Your task to perform on an android device: Open wifi settings Image 0: 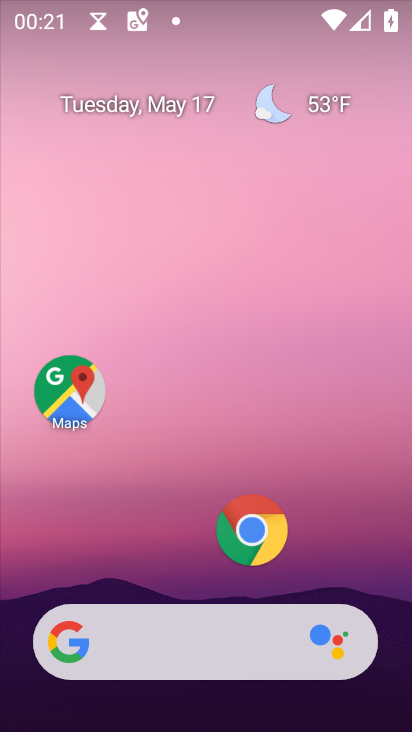
Step 0: drag from (187, 486) to (211, 94)
Your task to perform on an android device: Open wifi settings Image 1: 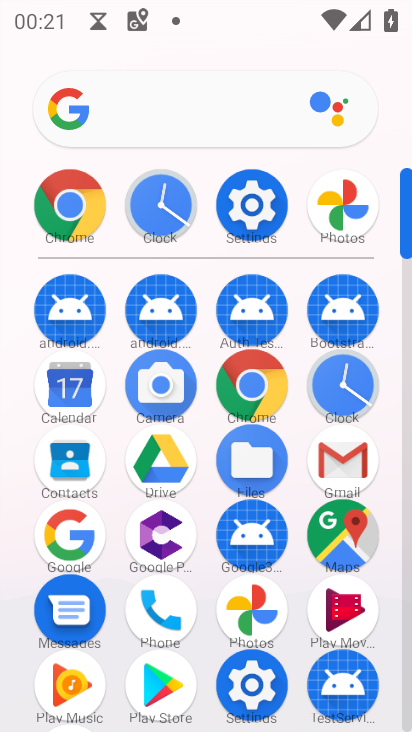
Step 1: click (246, 193)
Your task to perform on an android device: Open wifi settings Image 2: 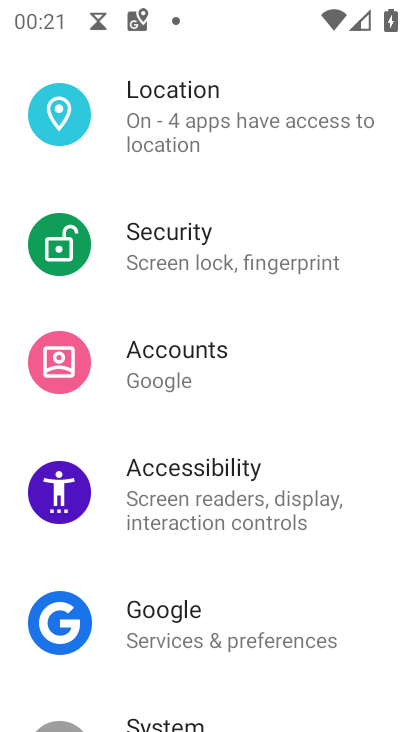
Step 2: drag from (297, 172) to (290, 518)
Your task to perform on an android device: Open wifi settings Image 3: 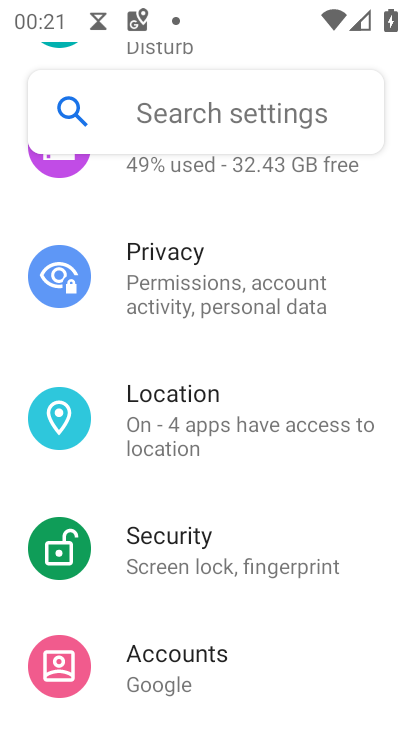
Step 3: drag from (317, 253) to (353, 593)
Your task to perform on an android device: Open wifi settings Image 4: 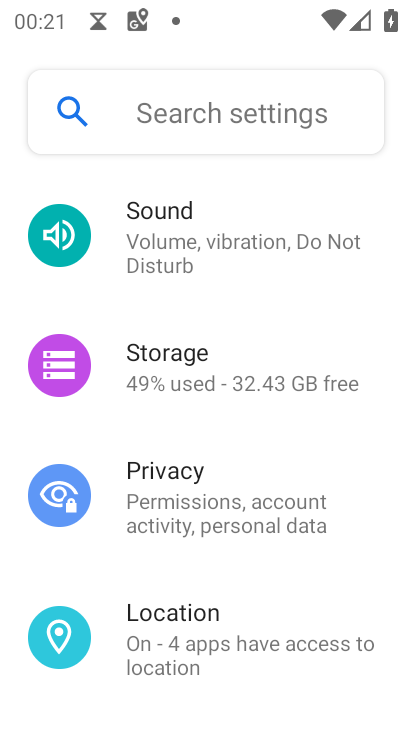
Step 4: drag from (352, 305) to (360, 534)
Your task to perform on an android device: Open wifi settings Image 5: 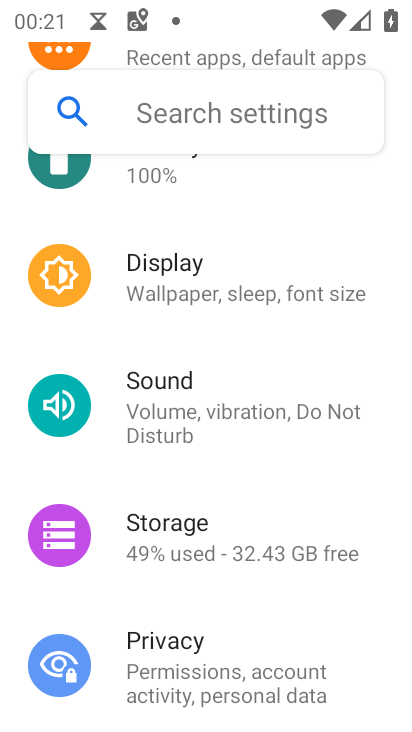
Step 5: drag from (230, 188) to (268, 554)
Your task to perform on an android device: Open wifi settings Image 6: 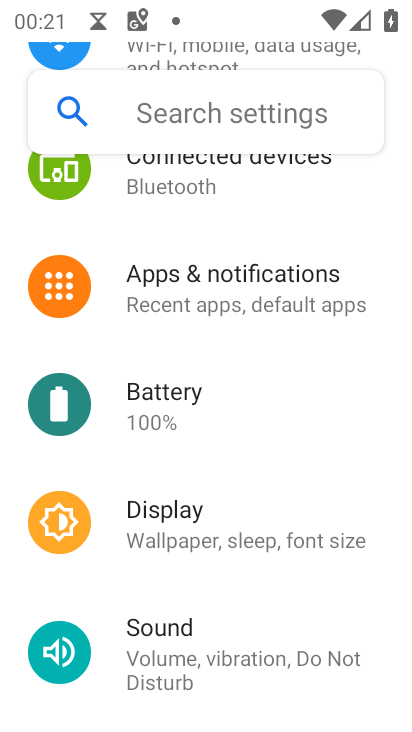
Step 6: drag from (290, 232) to (321, 473)
Your task to perform on an android device: Open wifi settings Image 7: 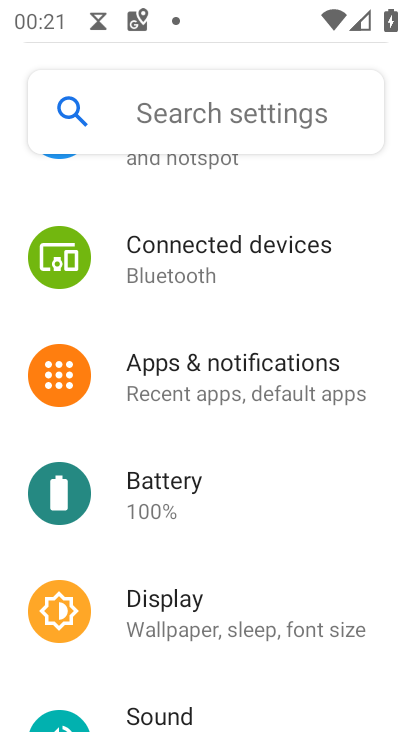
Step 7: drag from (271, 218) to (277, 496)
Your task to perform on an android device: Open wifi settings Image 8: 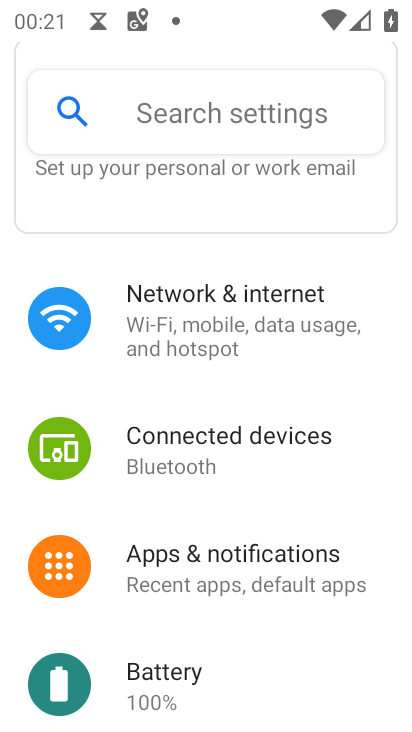
Step 8: click (252, 316)
Your task to perform on an android device: Open wifi settings Image 9: 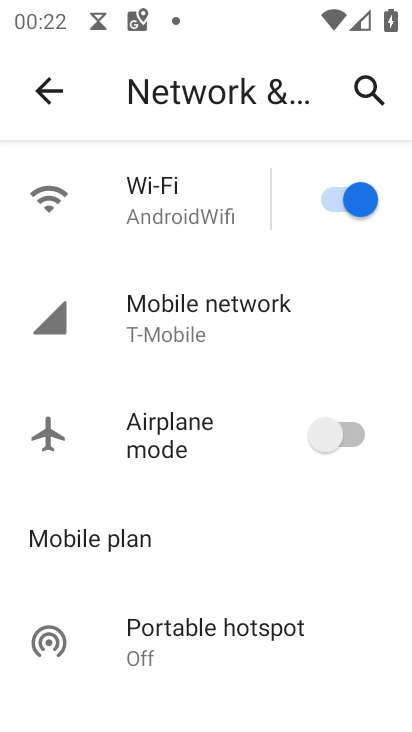
Step 9: click (152, 188)
Your task to perform on an android device: Open wifi settings Image 10: 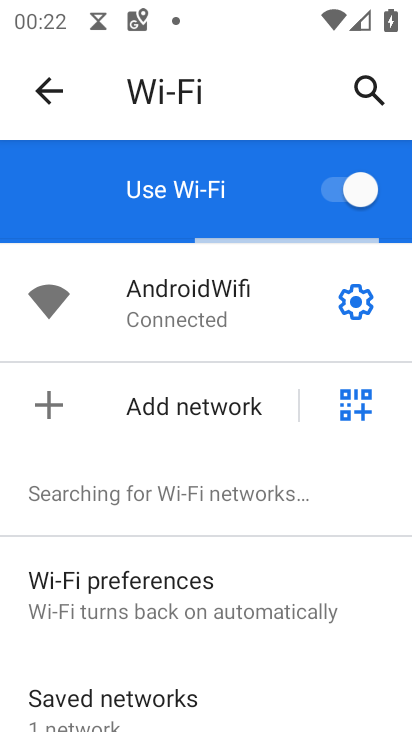
Step 10: task complete